Your task to perform on an android device: move a message to another label in the gmail app Image 0: 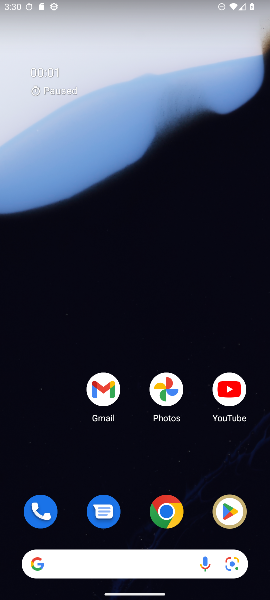
Step 0: drag from (125, 461) to (166, 194)
Your task to perform on an android device: move a message to another label in the gmail app Image 1: 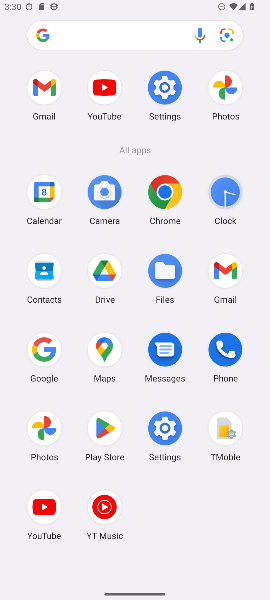
Step 1: click (227, 276)
Your task to perform on an android device: move a message to another label in the gmail app Image 2: 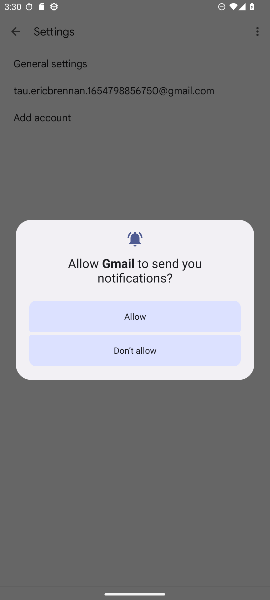
Step 2: click (183, 350)
Your task to perform on an android device: move a message to another label in the gmail app Image 3: 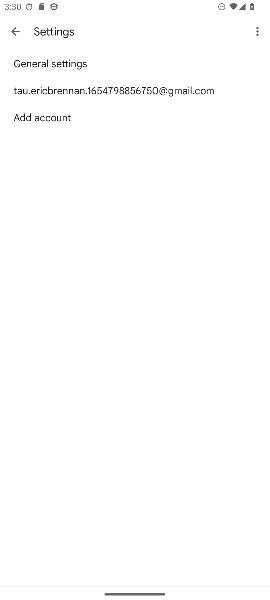
Step 3: press back button
Your task to perform on an android device: move a message to another label in the gmail app Image 4: 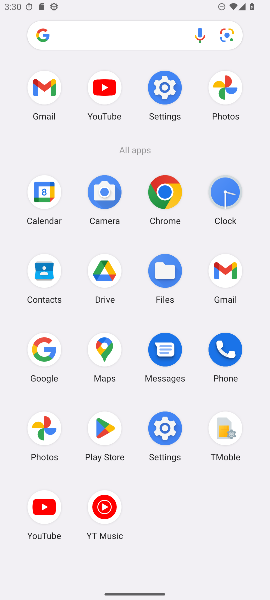
Step 4: click (41, 425)
Your task to perform on an android device: move a message to another label in the gmail app Image 5: 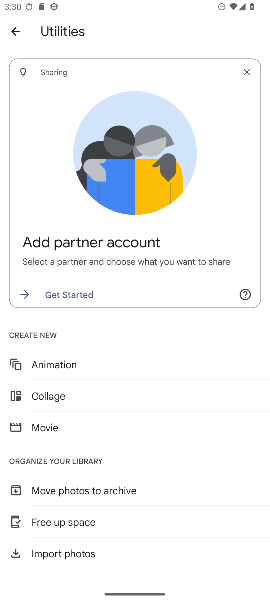
Step 5: press back button
Your task to perform on an android device: move a message to another label in the gmail app Image 6: 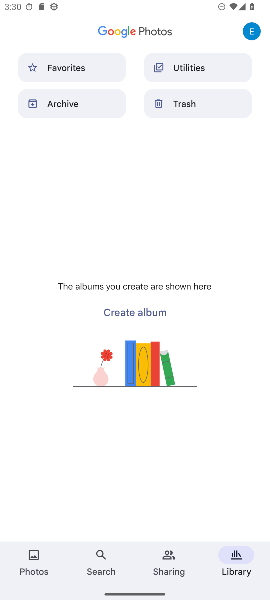
Step 6: press home button
Your task to perform on an android device: move a message to another label in the gmail app Image 7: 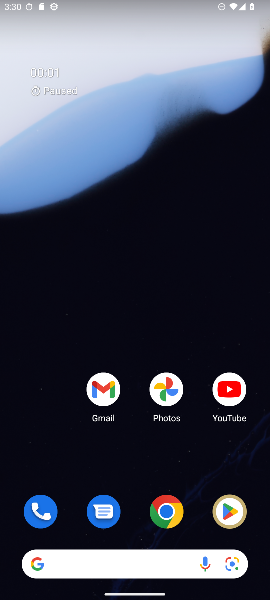
Step 7: drag from (140, 366) to (170, 157)
Your task to perform on an android device: move a message to another label in the gmail app Image 8: 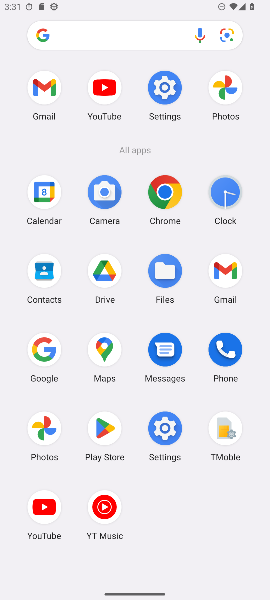
Step 8: click (230, 271)
Your task to perform on an android device: move a message to another label in the gmail app Image 9: 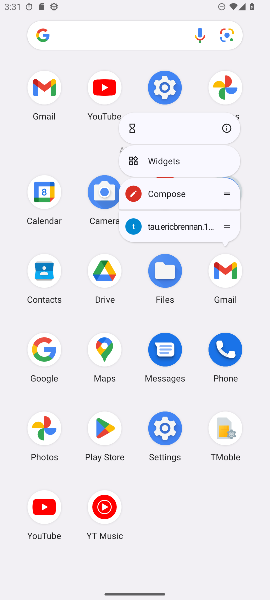
Step 9: click (227, 268)
Your task to perform on an android device: move a message to another label in the gmail app Image 10: 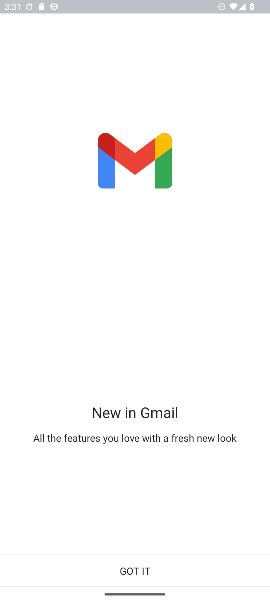
Step 10: click (136, 564)
Your task to perform on an android device: move a message to another label in the gmail app Image 11: 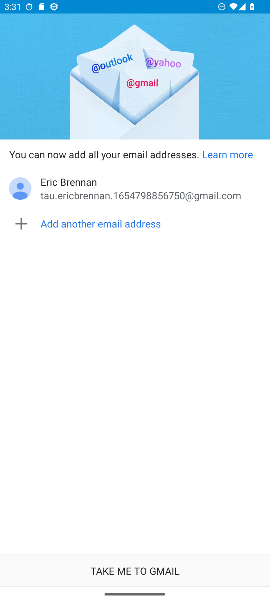
Step 11: click (142, 571)
Your task to perform on an android device: move a message to another label in the gmail app Image 12: 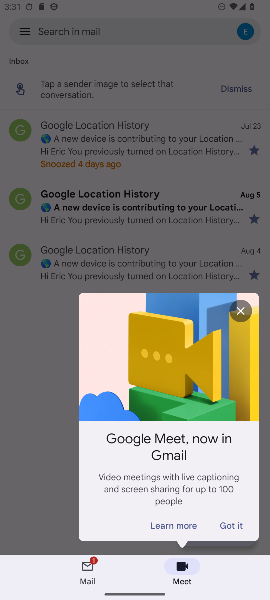
Step 12: click (223, 528)
Your task to perform on an android device: move a message to another label in the gmail app Image 13: 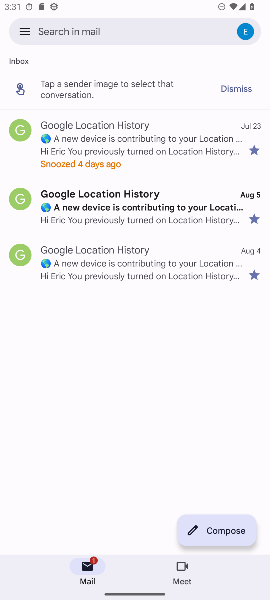
Step 13: click (156, 126)
Your task to perform on an android device: move a message to another label in the gmail app Image 14: 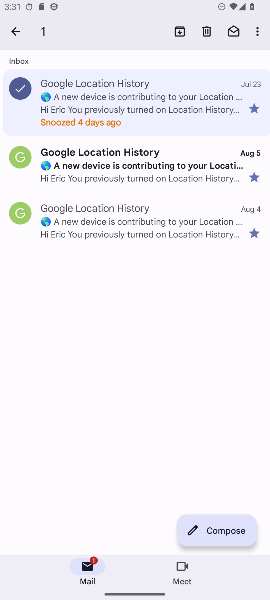
Step 14: click (259, 26)
Your task to perform on an android device: move a message to another label in the gmail app Image 15: 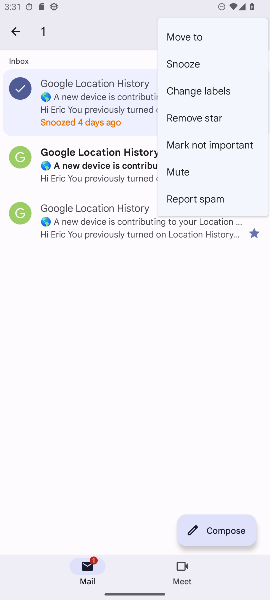
Step 15: click (179, 91)
Your task to perform on an android device: move a message to another label in the gmail app Image 16: 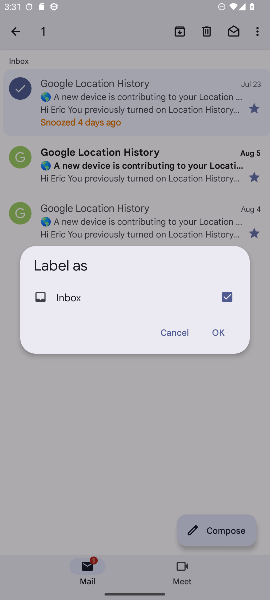
Step 16: click (230, 288)
Your task to perform on an android device: move a message to another label in the gmail app Image 17: 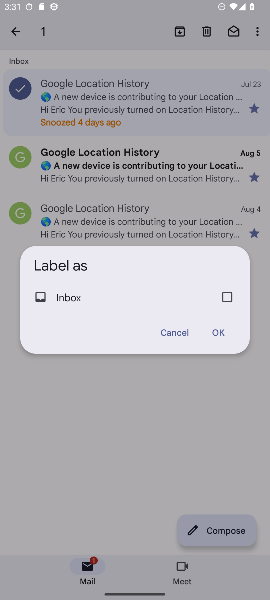
Step 17: click (216, 327)
Your task to perform on an android device: move a message to another label in the gmail app Image 18: 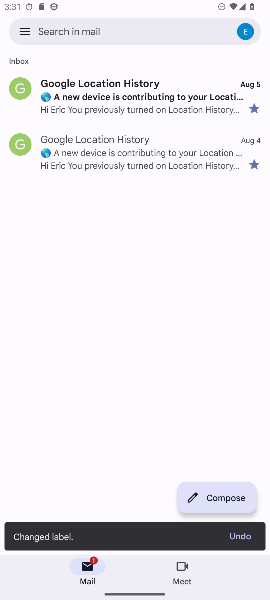
Step 18: task complete